Your task to perform on an android device: Open the map Image 0: 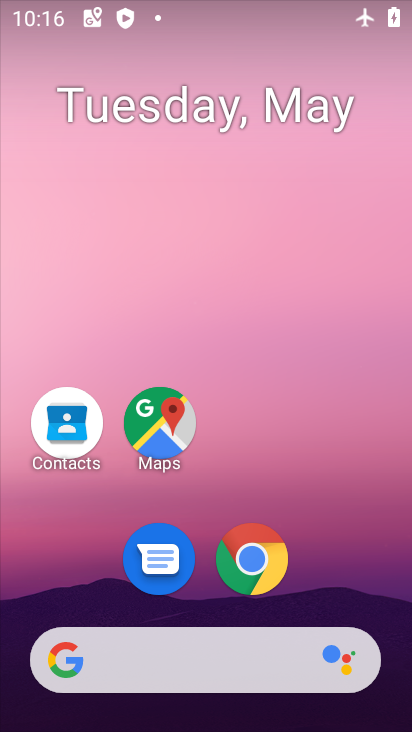
Step 0: click (161, 431)
Your task to perform on an android device: Open the map Image 1: 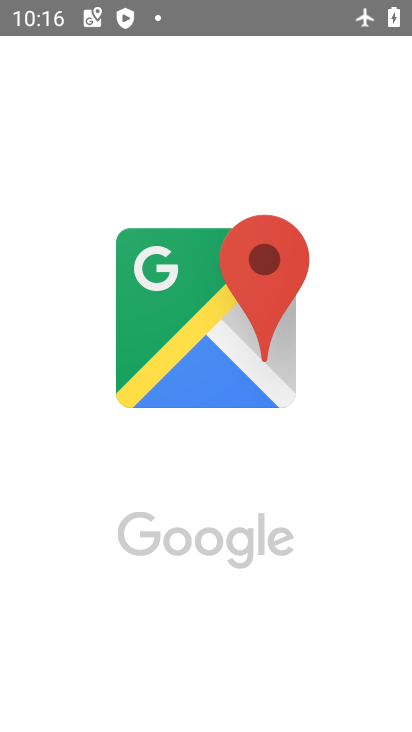
Step 1: task complete